Your task to perform on an android device: empty trash in google photos Image 0: 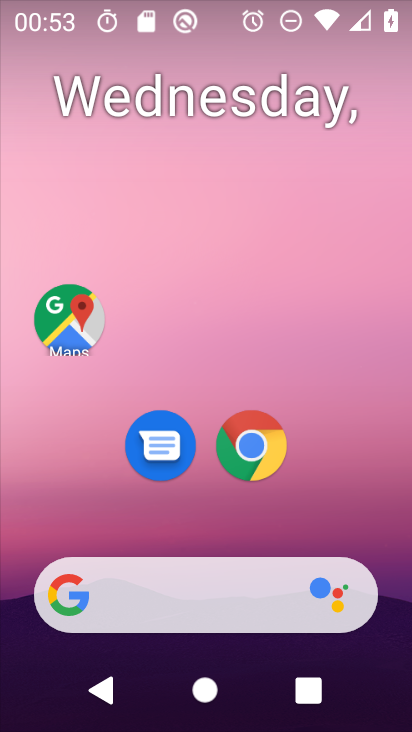
Step 0: drag from (296, 498) to (297, 59)
Your task to perform on an android device: empty trash in google photos Image 1: 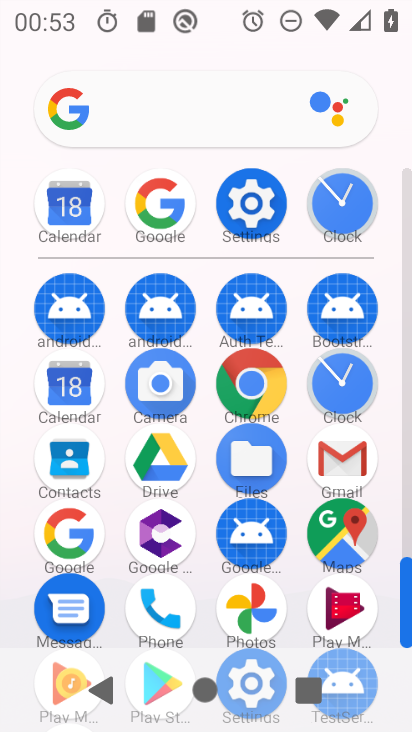
Step 1: click (250, 609)
Your task to perform on an android device: empty trash in google photos Image 2: 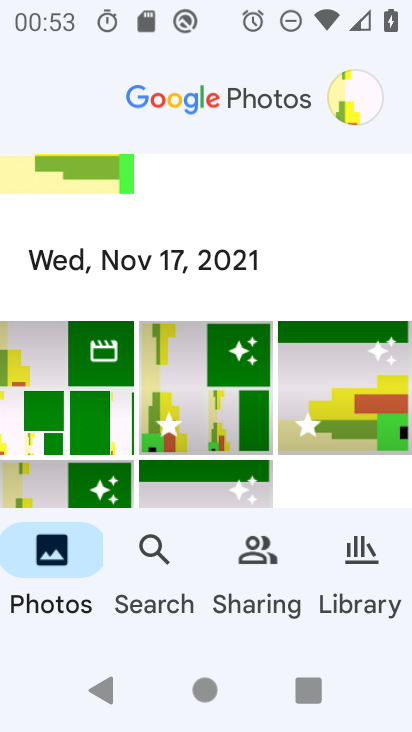
Step 2: click (354, 596)
Your task to perform on an android device: empty trash in google photos Image 3: 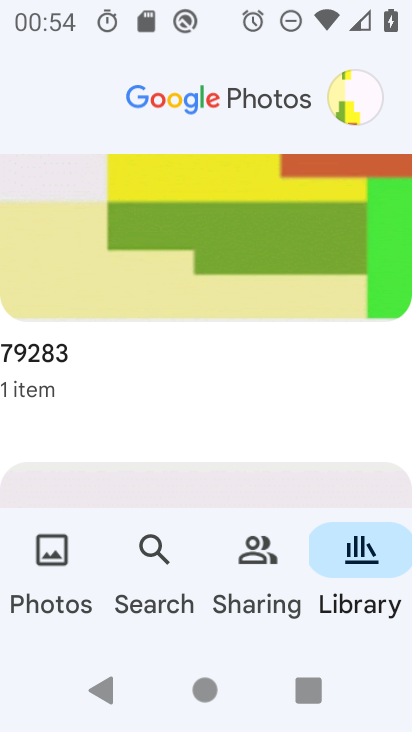
Step 3: drag from (313, 302) to (236, 659)
Your task to perform on an android device: empty trash in google photos Image 4: 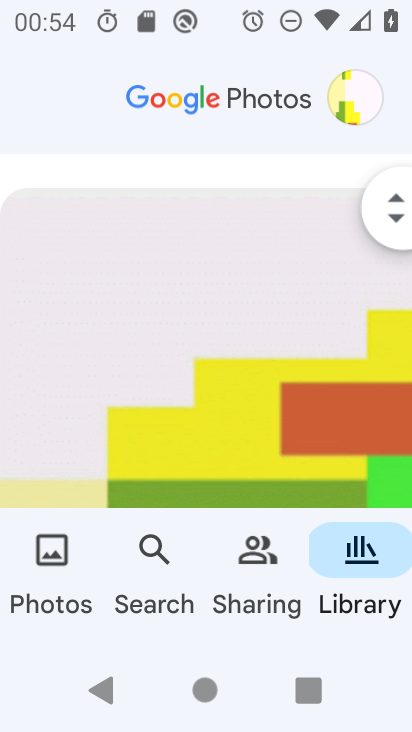
Step 4: drag from (255, 268) to (256, 496)
Your task to perform on an android device: empty trash in google photos Image 5: 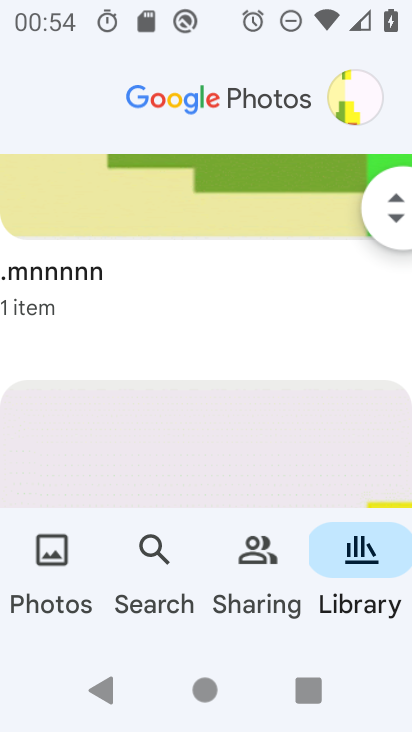
Step 5: drag from (241, 304) to (250, 543)
Your task to perform on an android device: empty trash in google photos Image 6: 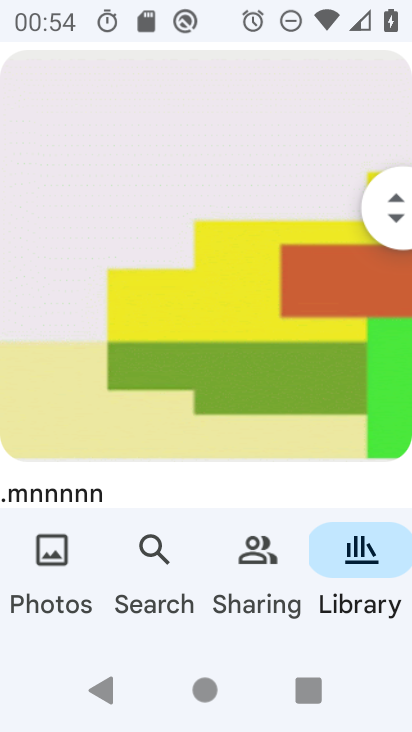
Step 6: drag from (299, 363) to (312, 509)
Your task to perform on an android device: empty trash in google photos Image 7: 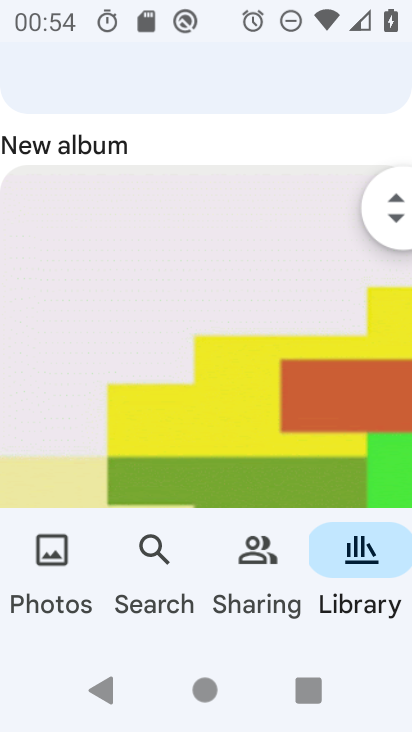
Step 7: drag from (349, 247) to (332, 450)
Your task to perform on an android device: empty trash in google photos Image 8: 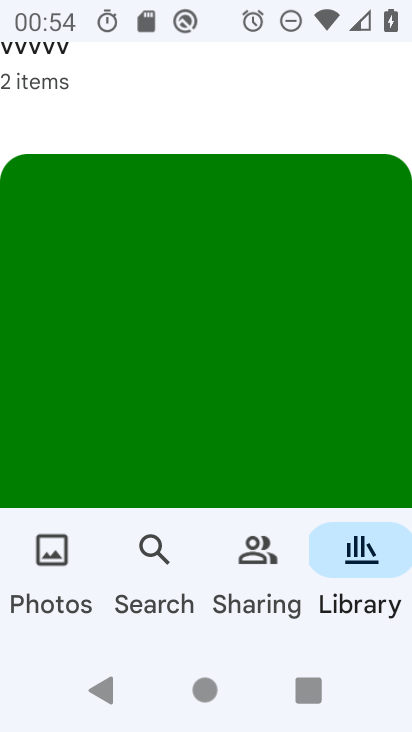
Step 8: drag from (283, 237) to (312, 604)
Your task to perform on an android device: empty trash in google photos Image 9: 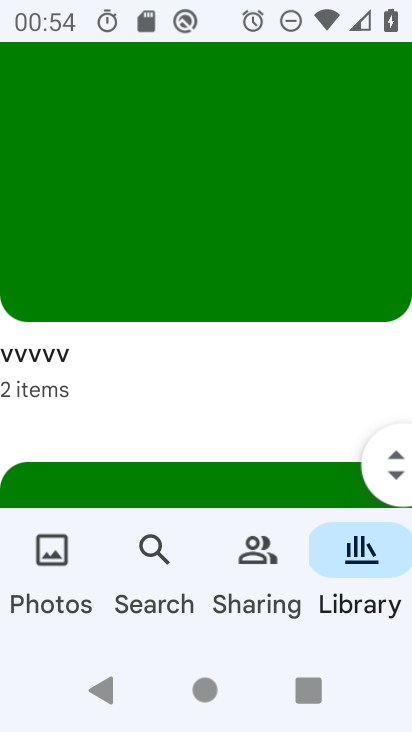
Step 9: drag from (401, 464) to (400, 100)
Your task to perform on an android device: empty trash in google photos Image 10: 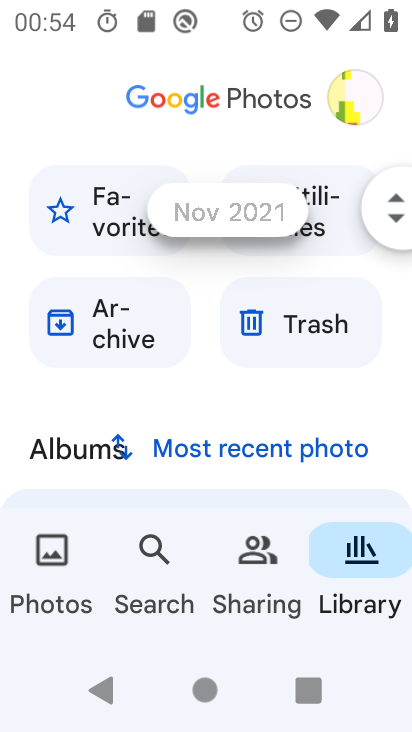
Step 10: click (337, 324)
Your task to perform on an android device: empty trash in google photos Image 11: 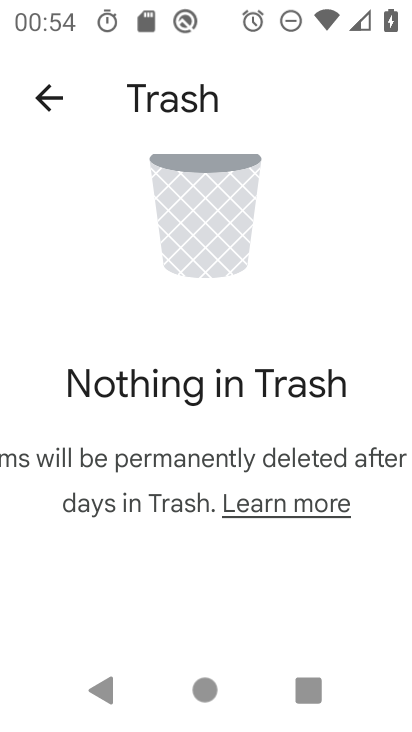
Step 11: task complete